Your task to perform on an android device: set an alarm Image 0: 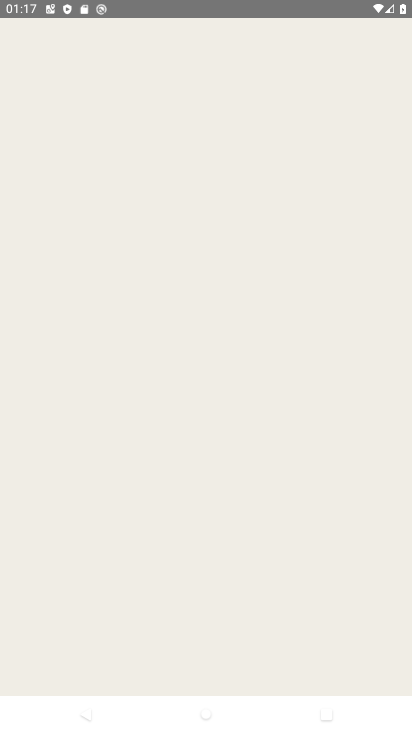
Step 0: drag from (190, 660) to (126, 130)
Your task to perform on an android device: set an alarm Image 1: 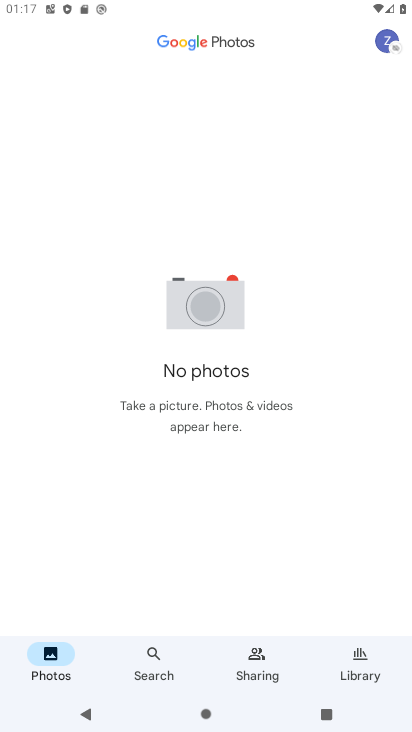
Step 1: press home button
Your task to perform on an android device: set an alarm Image 2: 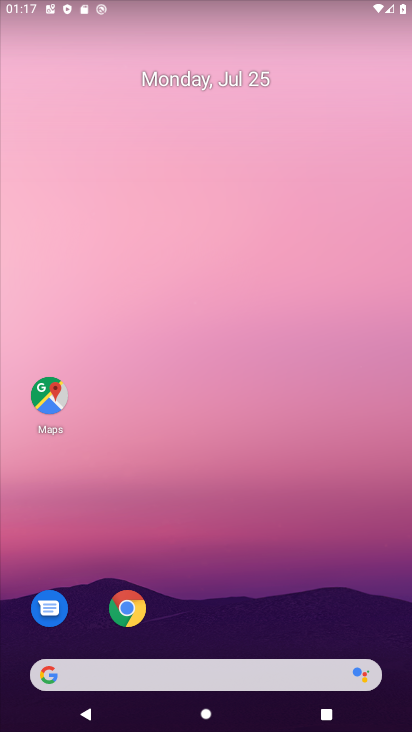
Step 2: drag from (211, 647) to (235, 2)
Your task to perform on an android device: set an alarm Image 3: 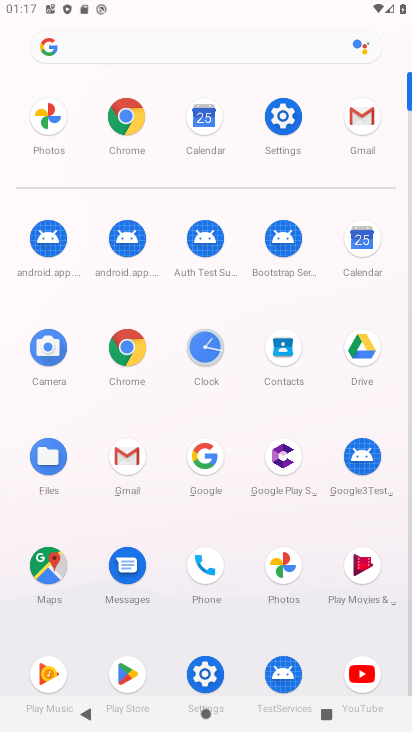
Step 3: click (202, 367)
Your task to perform on an android device: set an alarm Image 4: 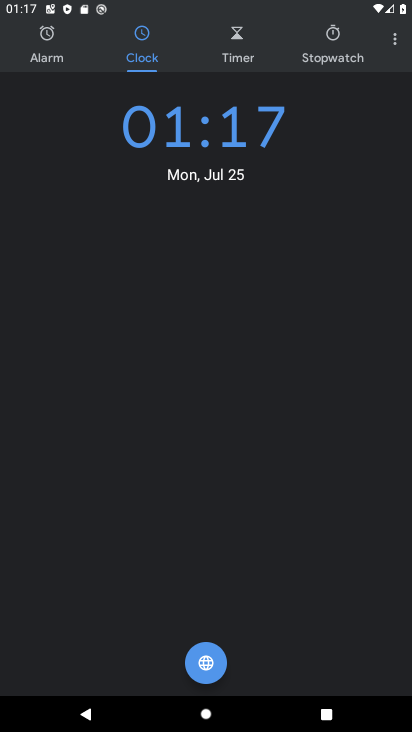
Step 4: click (58, 48)
Your task to perform on an android device: set an alarm Image 5: 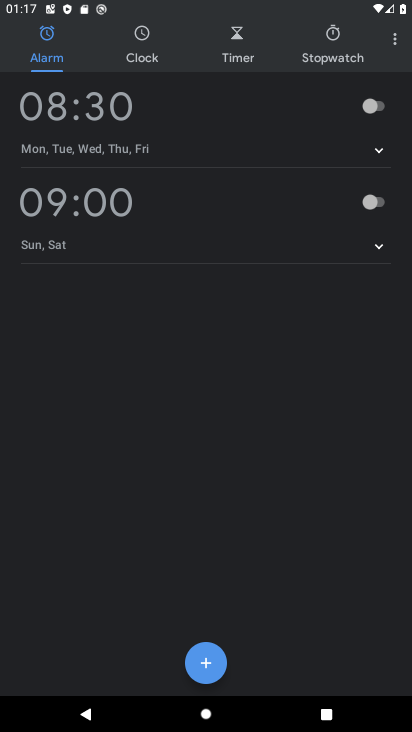
Step 5: click (218, 639)
Your task to perform on an android device: set an alarm Image 6: 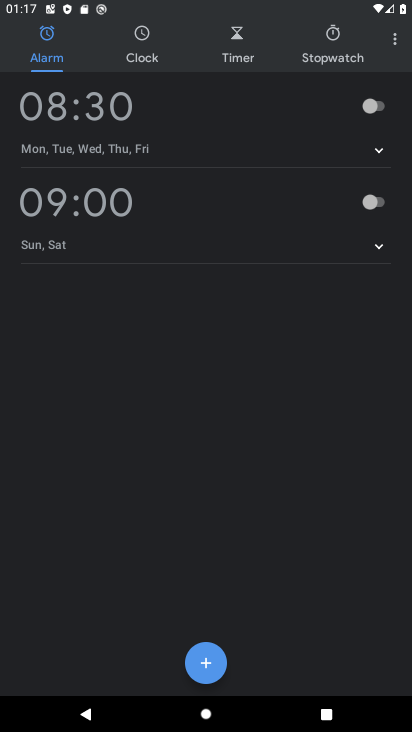
Step 6: click (212, 658)
Your task to perform on an android device: set an alarm Image 7: 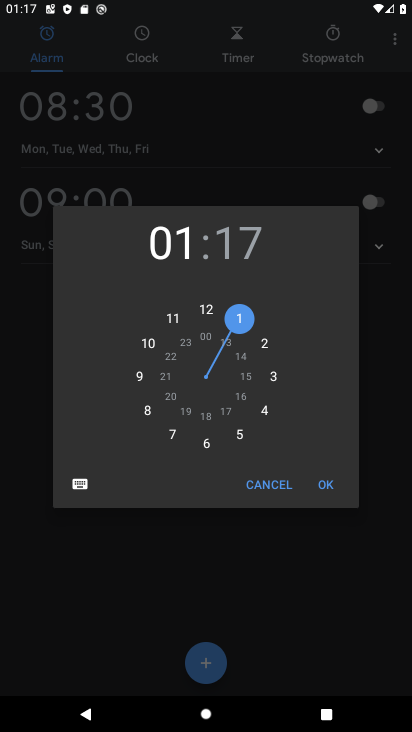
Step 7: click (332, 478)
Your task to perform on an android device: set an alarm Image 8: 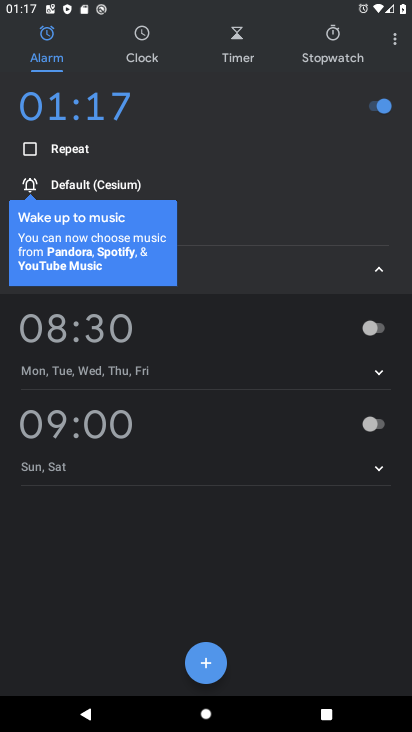
Step 8: task complete